Your task to perform on an android device: Open calendar and show me the first week of next month Image 0: 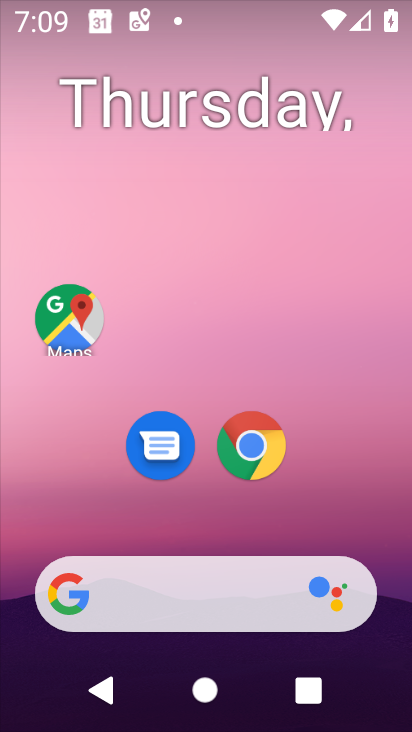
Step 0: drag from (382, 623) to (276, 65)
Your task to perform on an android device: Open calendar and show me the first week of next month Image 1: 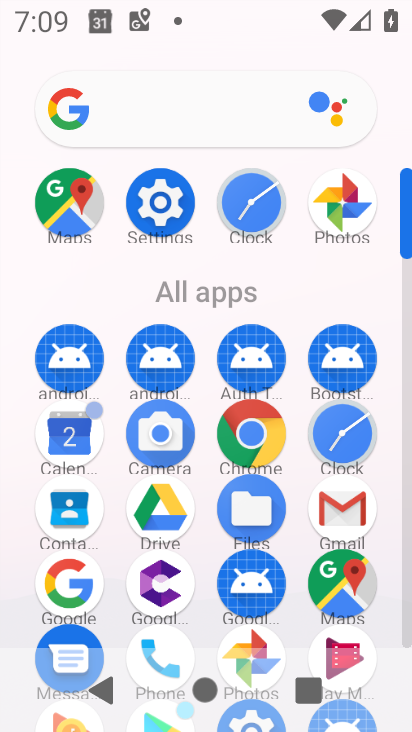
Step 1: click (79, 441)
Your task to perform on an android device: Open calendar and show me the first week of next month Image 2: 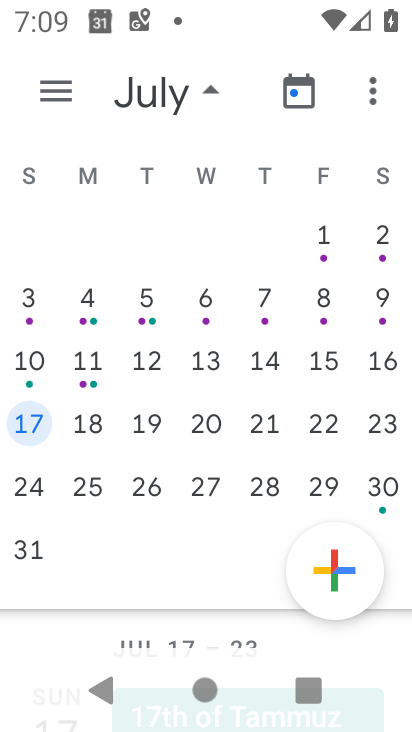
Step 2: drag from (366, 381) to (39, 354)
Your task to perform on an android device: Open calendar and show me the first week of next month Image 3: 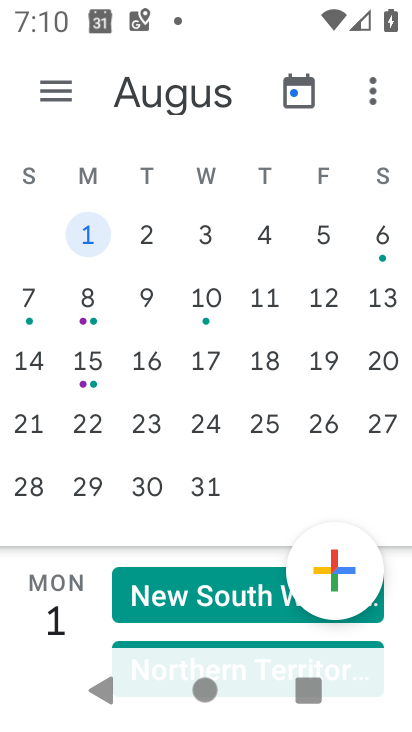
Step 3: click (83, 301)
Your task to perform on an android device: Open calendar and show me the first week of next month Image 4: 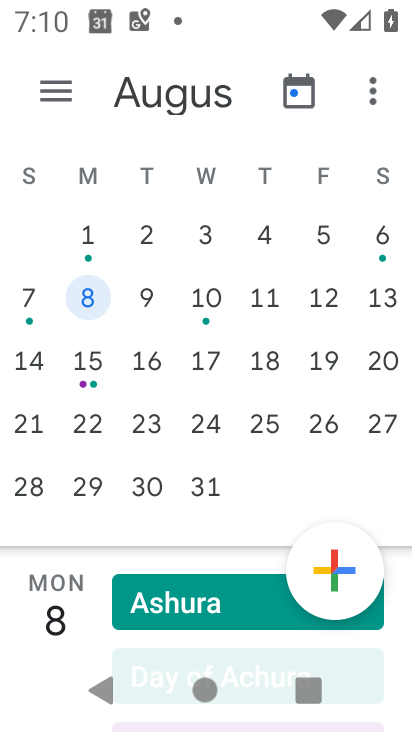
Step 4: task complete